Your task to perform on an android device: turn off priority inbox in the gmail app Image 0: 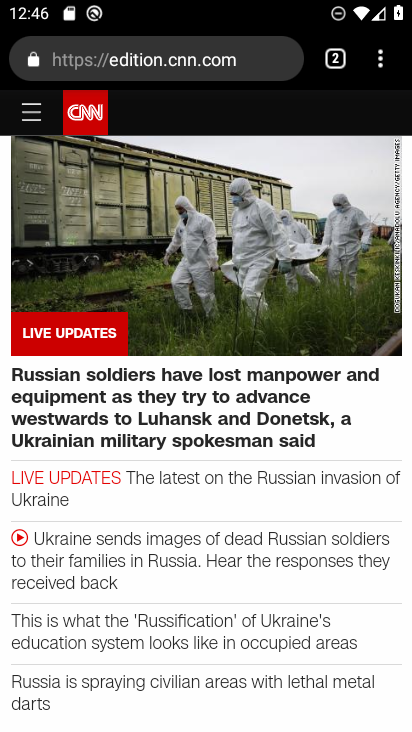
Step 0: press home button
Your task to perform on an android device: turn off priority inbox in the gmail app Image 1: 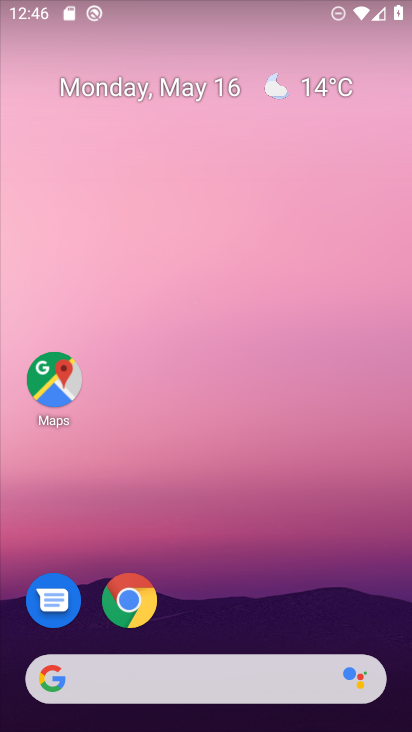
Step 1: drag from (209, 630) to (241, 72)
Your task to perform on an android device: turn off priority inbox in the gmail app Image 2: 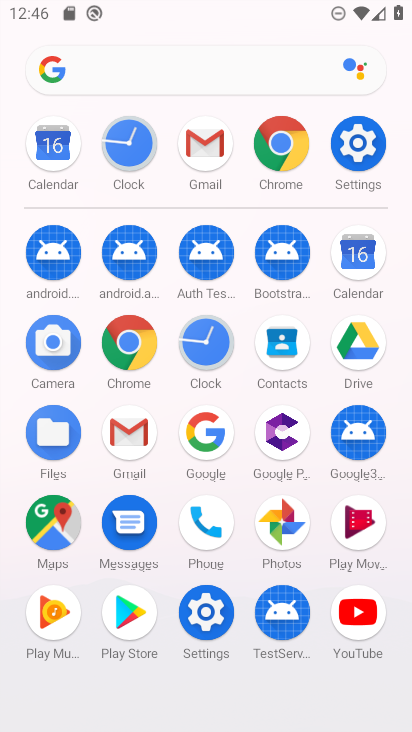
Step 2: click (206, 139)
Your task to perform on an android device: turn off priority inbox in the gmail app Image 3: 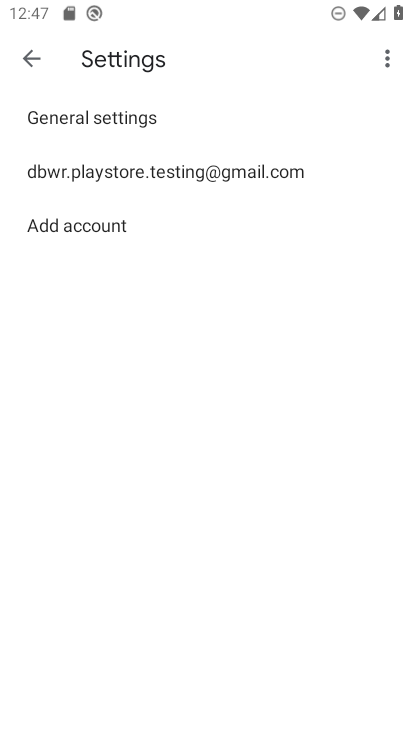
Step 3: click (219, 172)
Your task to perform on an android device: turn off priority inbox in the gmail app Image 4: 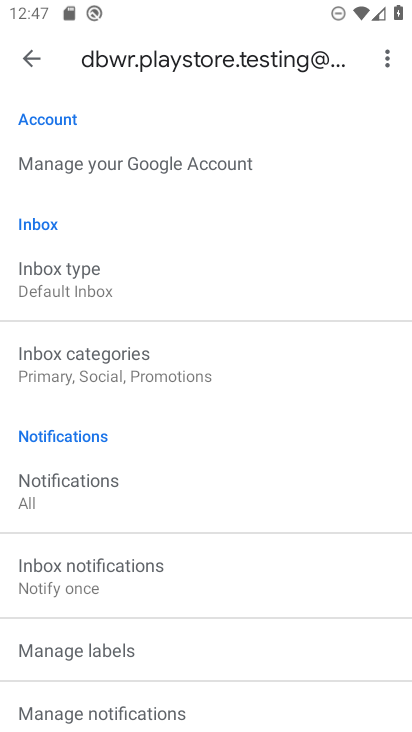
Step 4: click (132, 271)
Your task to perform on an android device: turn off priority inbox in the gmail app Image 5: 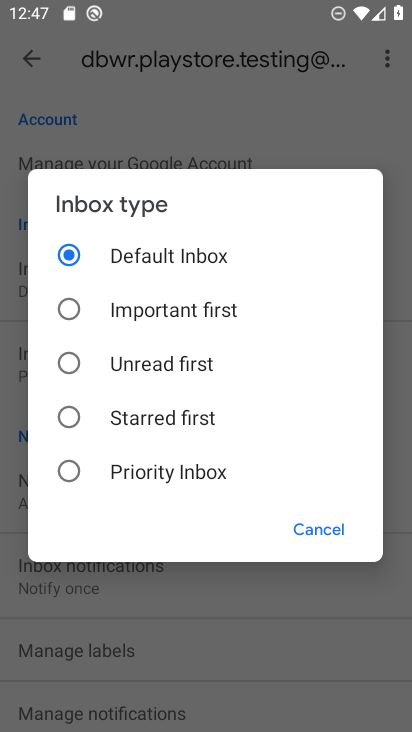
Step 5: click (70, 464)
Your task to perform on an android device: turn off priority inbox in the gmail app Image 6: 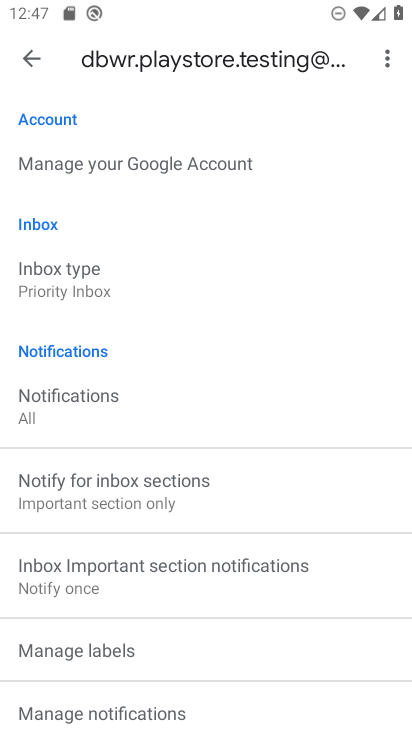
Step 6: click (93, 276)
Your task to perform on an android device: turn off priority inbox in the gmail app Image 7: 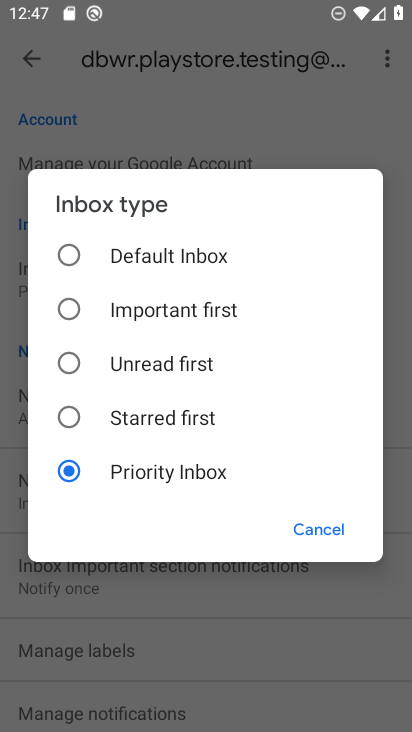
Step 7: click (71, 409)
Your task to perform on an android device: turn off priority inbox in the gmail app Image 8: 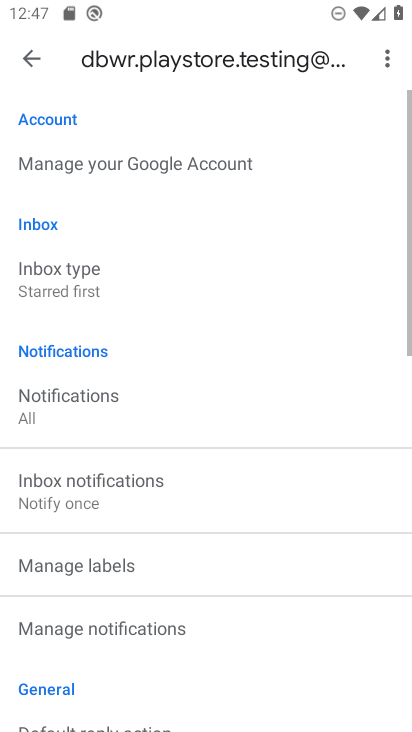
Step 8: task complete